Your task to perform on an android device: Go to location settings Image 0: 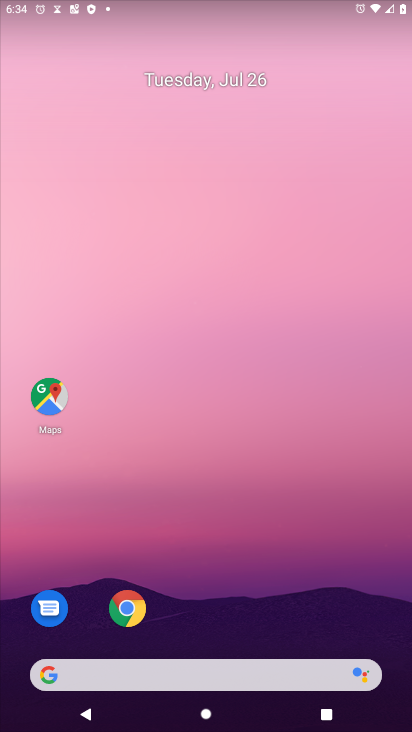
Step 0: drag from (211, 615) to (278, 128)
Your task to perform on an android device: Go to location settings Image 1: 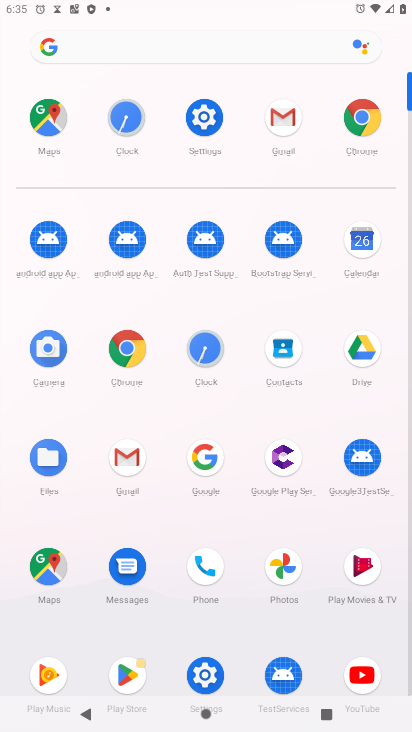
Step 1: click (182, 118)
Your task to perform on an android device: Go to location settings Image 2: 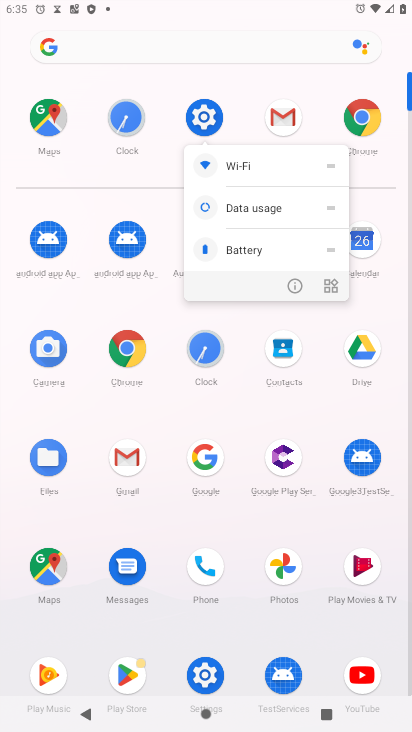
Step 2: click (194, 120)
Your task to perform on an android device: Go to location settings Image 3: 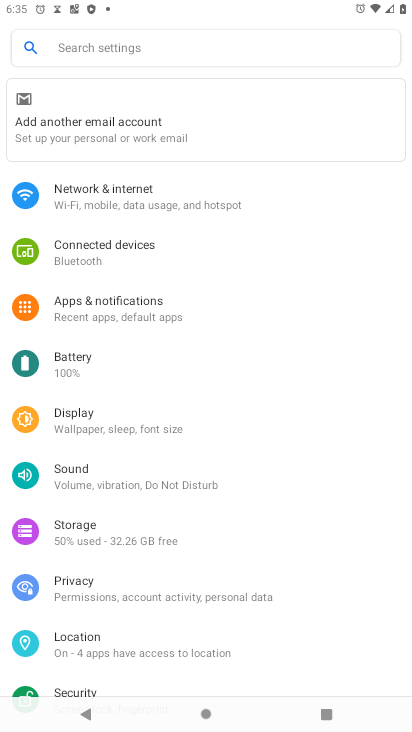
Step 3: click (87, 639)
Your task to perform on an android device: Go to location settings Image 4: 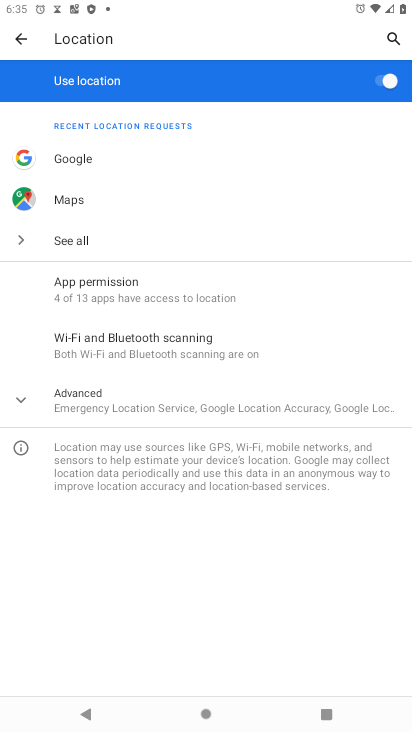
Step 4: task complete